Your task to perform on an android device: Open eBay Image 0: 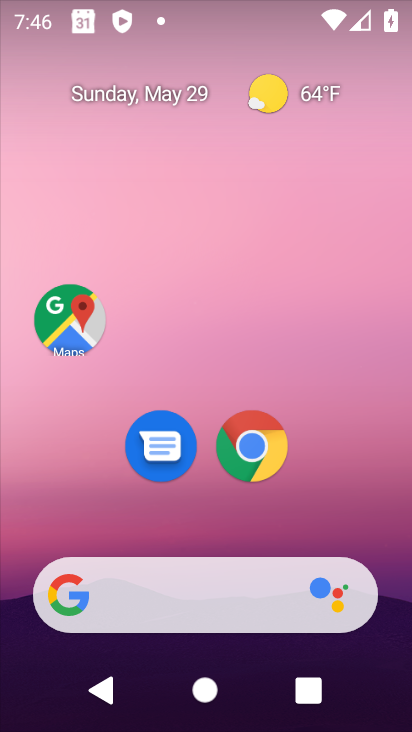
Step 0: drag from (239, 528) to (408, 131)
Your task to perform on an android device: Open eBay Image 1: 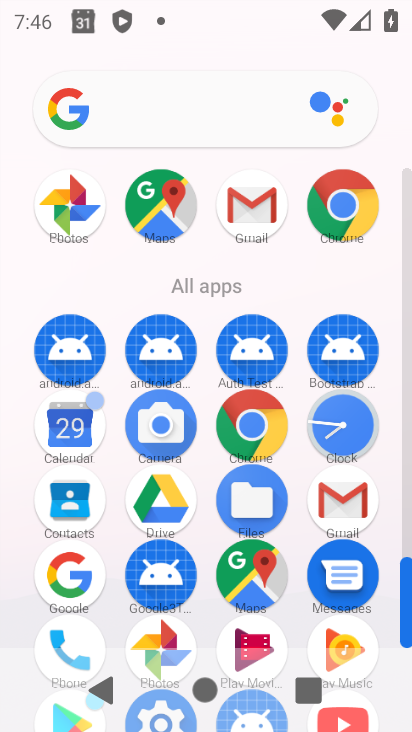
Step 1: click (314, 214)
Your task to perform on an android device: Open eBay Image 2: 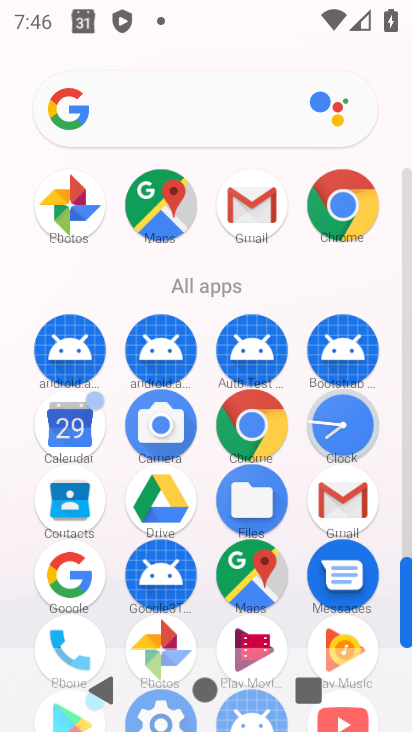
Step 2: click (314, 214)
Your task to perform on an android device: Open eBay Image 3: 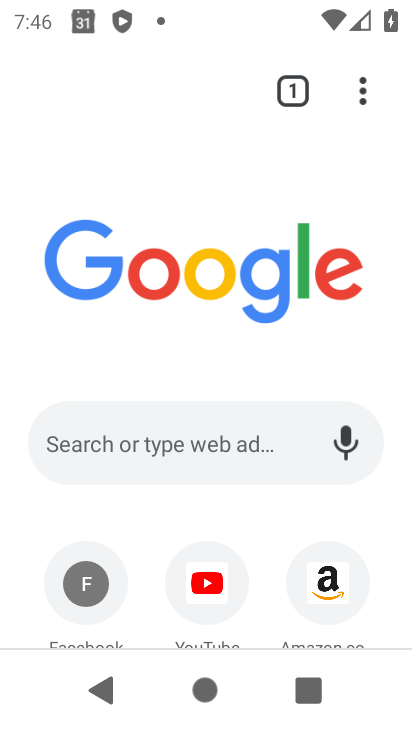
Step 3: drag from (213, 489) to (397, 13)
Your task to perform on an android device: Open eBay Image 4: 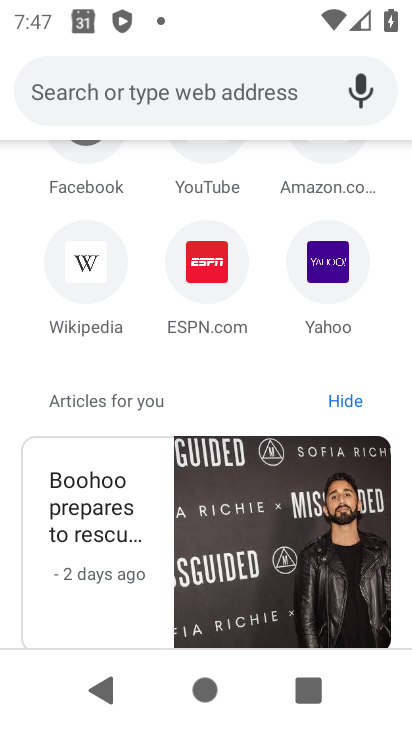
Step 4: click (126, 86)
Your task to perform on an android device: Open eBay Image 5: 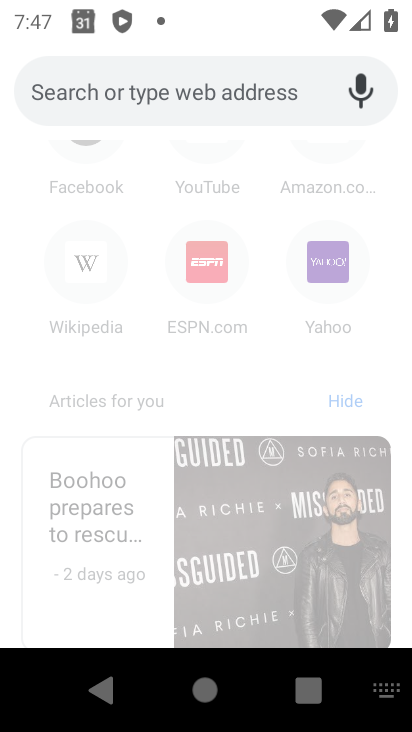
Step 5: click (155, 82)
Your task to perform on an android device: Open eBay Image 6: 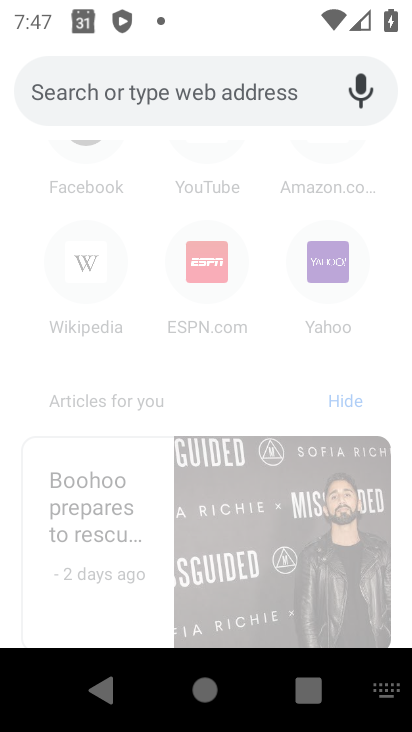
Step 6: type "eBay"
Your task to perform on an android device: Open eBay Image 7: 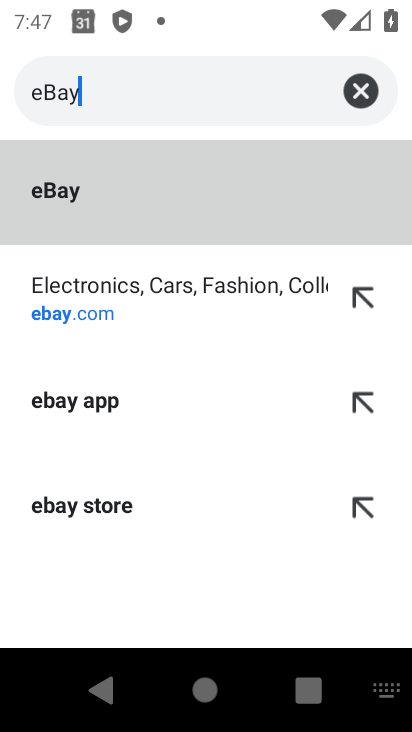
Step 7: type ""
Your task to perform on an android device: Open eBay Image 8: 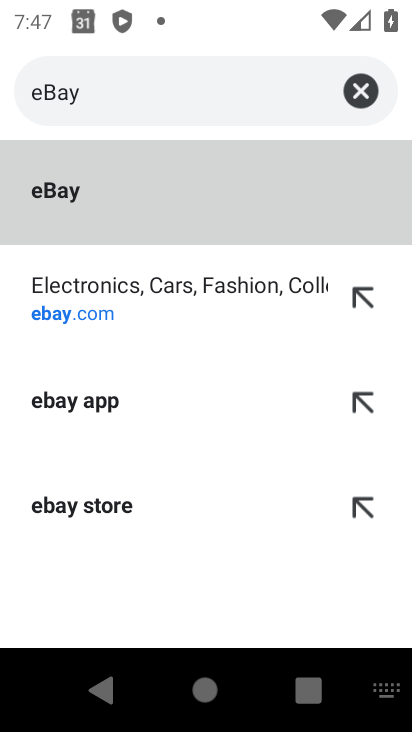
Step 8: click (145, 188)
Your task to perform on an android device: Open eBay Image 9: 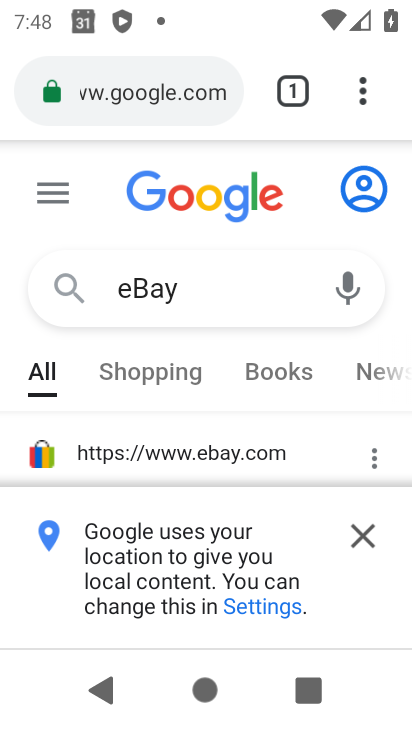
Step 9: drag from (320, 224) to (361, 130)
Your task to perform on an android device: Open eBay Image 10: 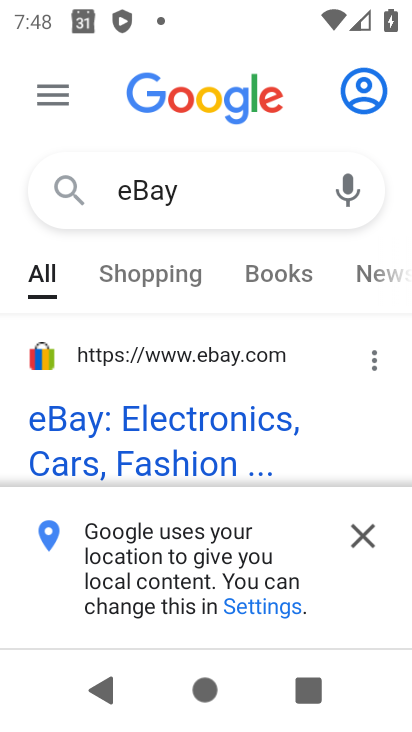
Step 10: drag from (301, 379) to (9, 150)
Your task to perform on an android device: Open eBay Image 11: 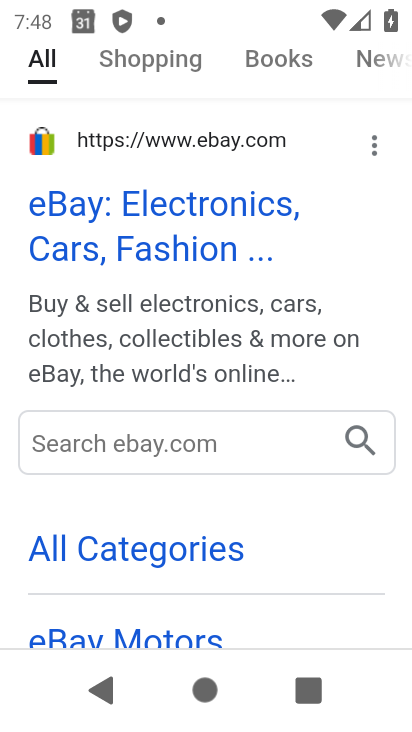
Step 11: drag from (208, 272) to (265, 536)
Your task to perform on an android device: Open eBay Image 12: 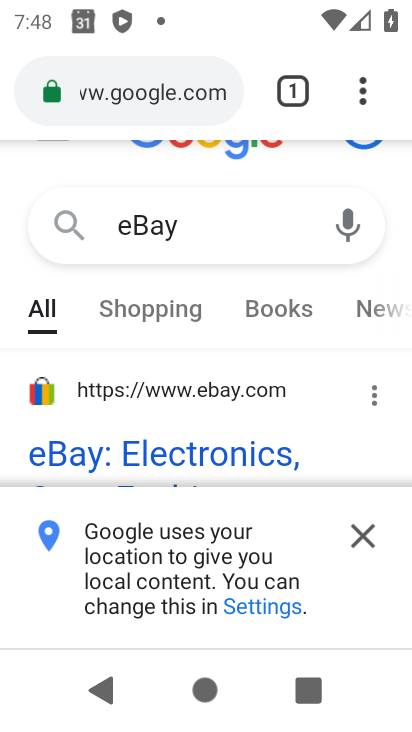
Step 12: click (117, 466)
Your task to perform on an android device: Open eBay Image 13: 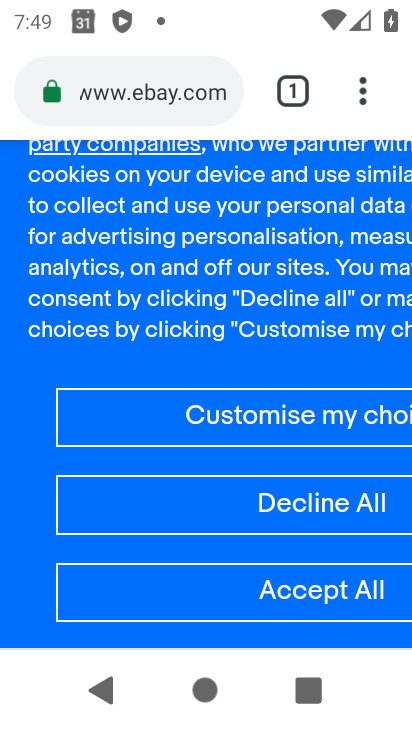
Step 13: task complete